Your task to perform on an android device: check battery use Image 0: 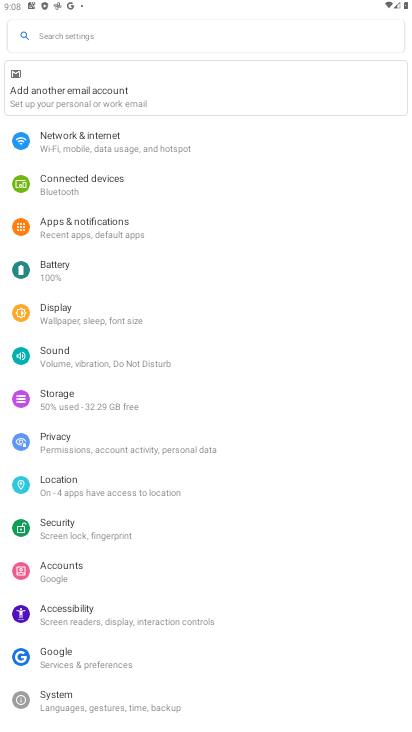
Step 0: click (108, 274)
Your task to perform on an android device: check battery use Image 1: 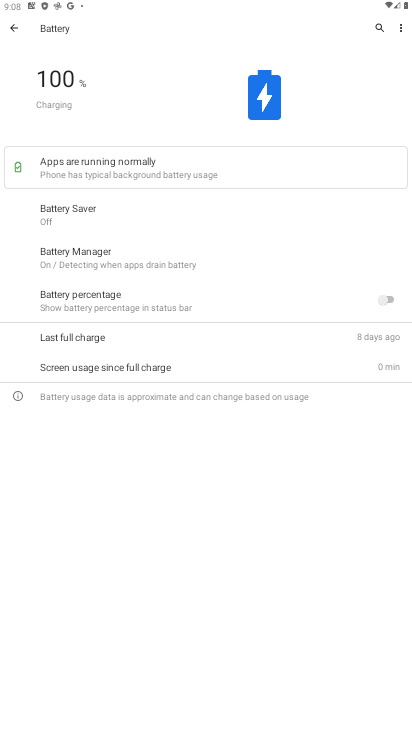
Step 1: task complete